Your task to perform on an android device: turn off javascript in the chrome app Image 0: 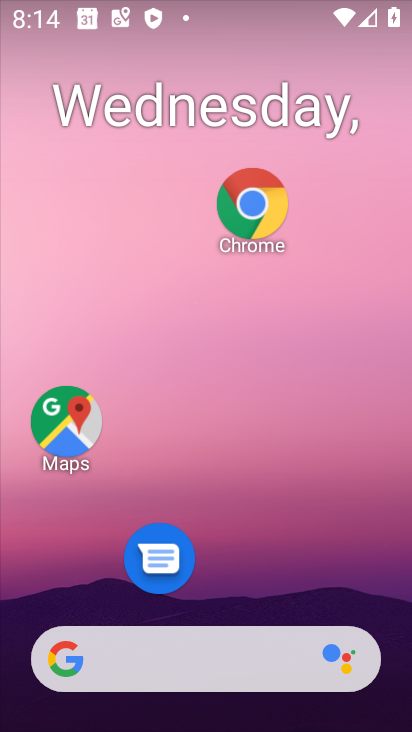
Step 0: click (248, 201)
Your task to perform on an android device: turn off javascript in the chrome app Image 1: 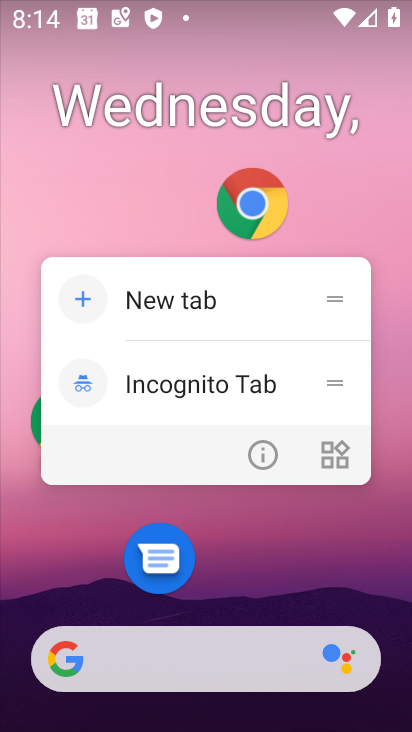
Step 1: click (258, 199)
Your task to perform on an android device: turn off javascript in the chrome app Image 2: 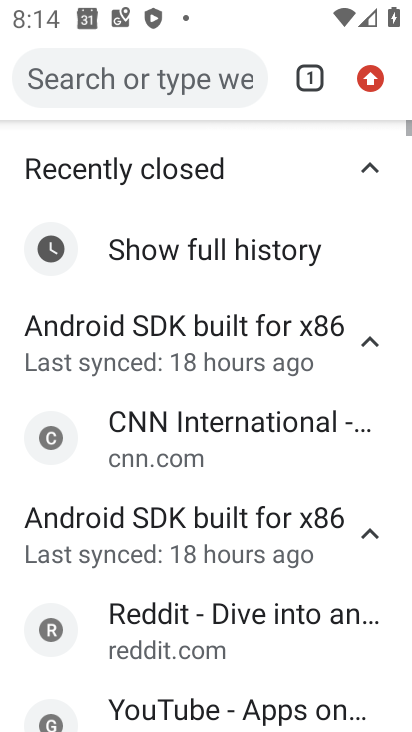
Step 2: click (362, 80)
Your task to perform on an android device: turn off javascript in the chrome app Image 3: 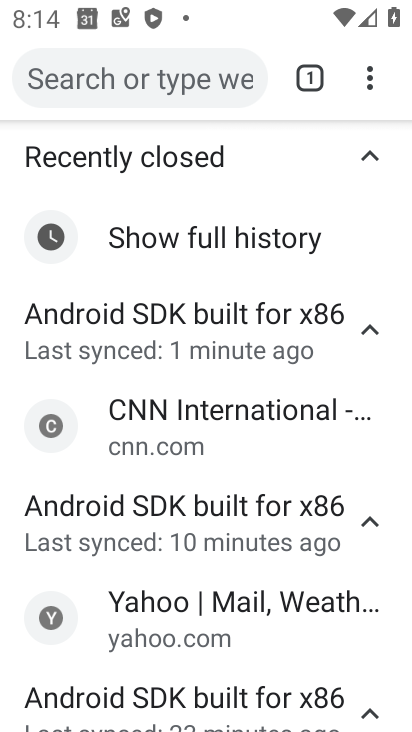
Step 3: click (363, 69)
Your task to perform on an android device: turn off javascript in the chrome app Image 4: 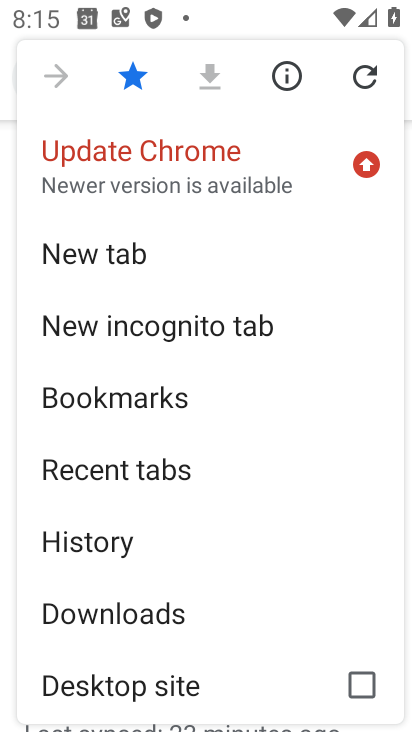
Step 4: drag from (229, 679) to (222, 104)
Your task to perform on an android device: turn off javascript in the chrome app Image 5: 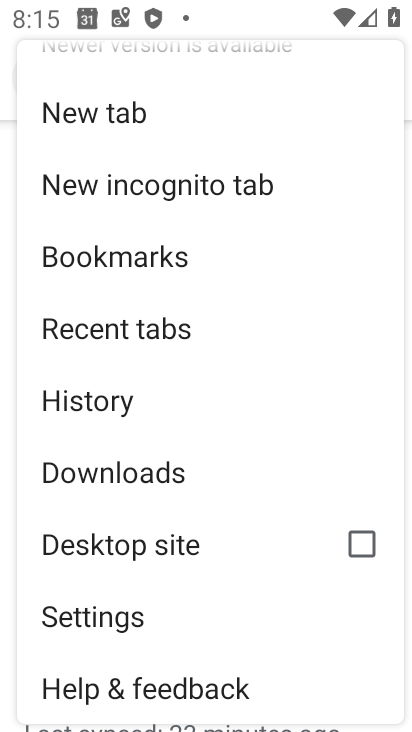
Step 5: click (150, 615)
Your task to perform on an android device: turn off javascript in the chrome app Image 6: 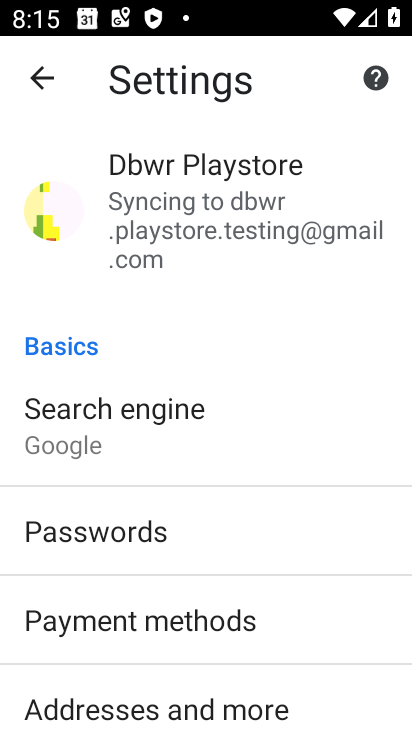
Step 6: drag from (223, 656) to (234, 118)
Your task to perform on an android device: turn off javascript in the chrome app Image 7: 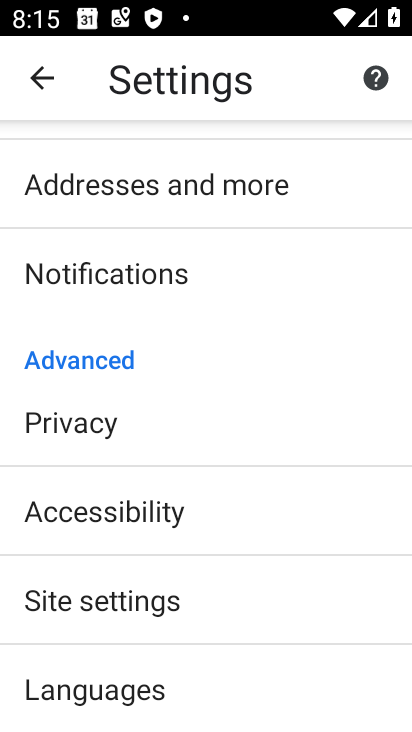
Step 7: click (235, 91)
Your task to perform on an android device: turn off javascript in the chrome app Image 8: 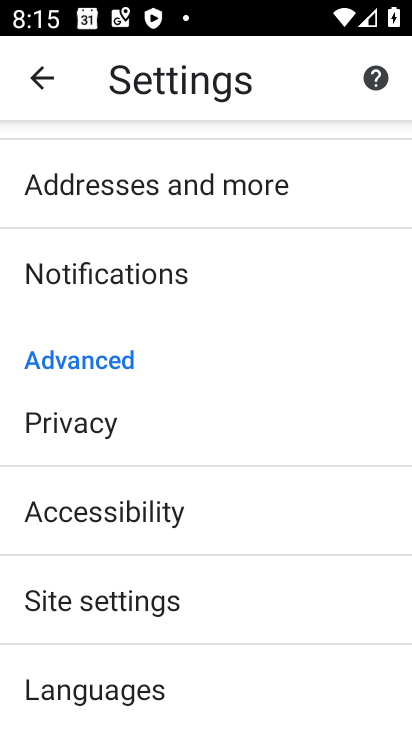
Step 8: drag from (213, 665) to (228, 220)
Your task to perform on an android device: turn off javascript in the chrome app Image 9: 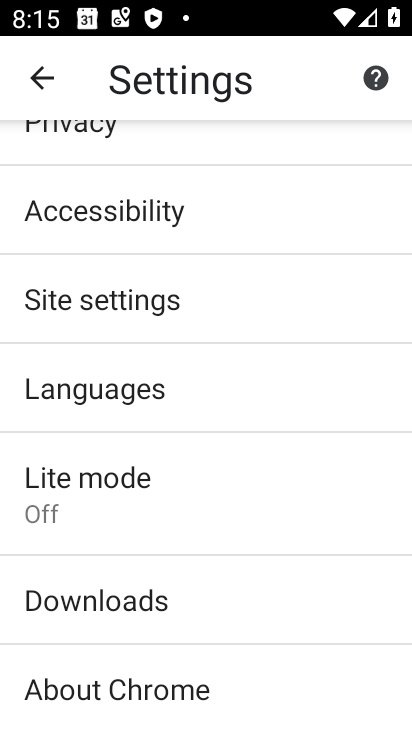
Step 9: click (188, 291)
Your task to perform on an android device: turn off javascript in the chrome app Image 10: 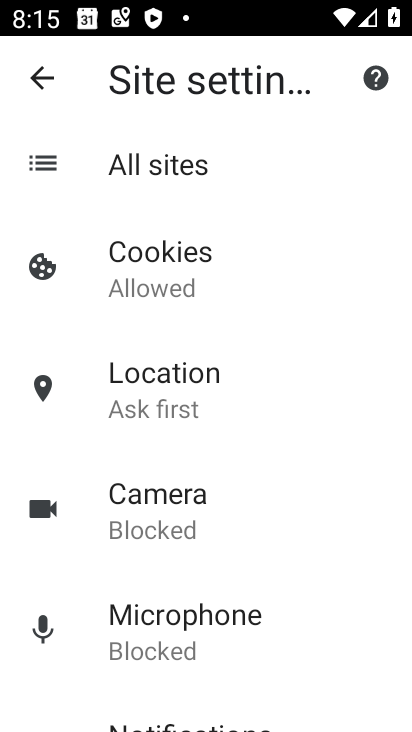
Step 10: drag from (231, 631) to (271, 157)
Your task to perform on an android device: turn off javascript in the chrome app Image 11: 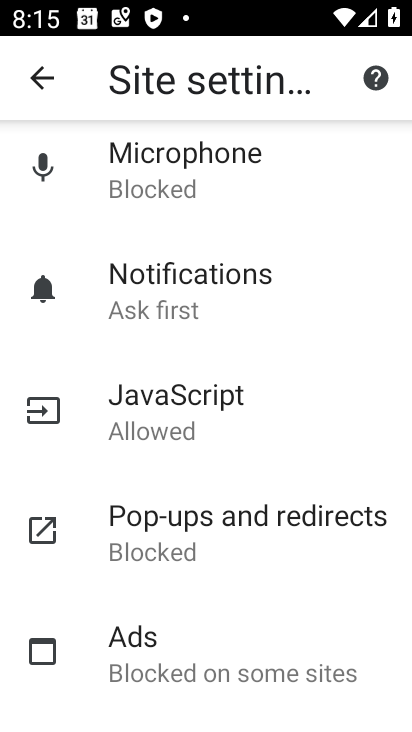
Step 11: click (231, 413)
Your task to perform on an android device: turn off javascript in the chrome app Image 12: 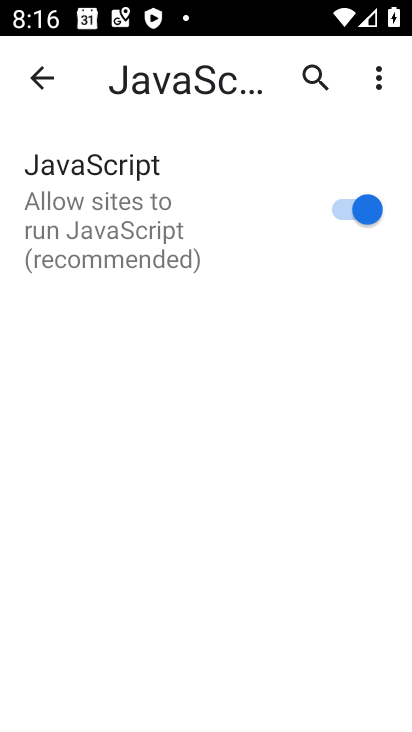
Step 12: click (335, 202)
Your task to perform on an android device: turn off javascript in the chrome app Image 13: 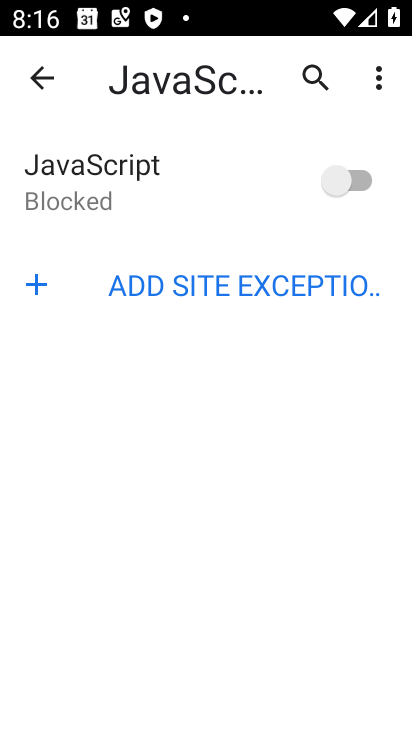
Step 13: task complete